Your task to perform on an android device: Open calendar and show me the second week of next month Image 0: 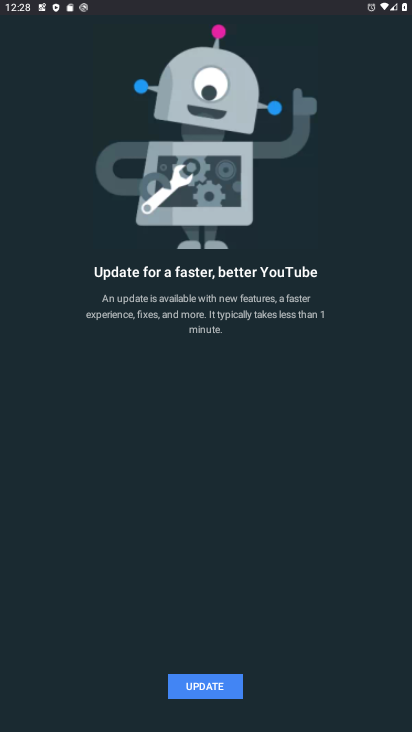
Step 0: press home button
Your task to perform on an android device: Open calendar and show me the second week of next month Image 1: 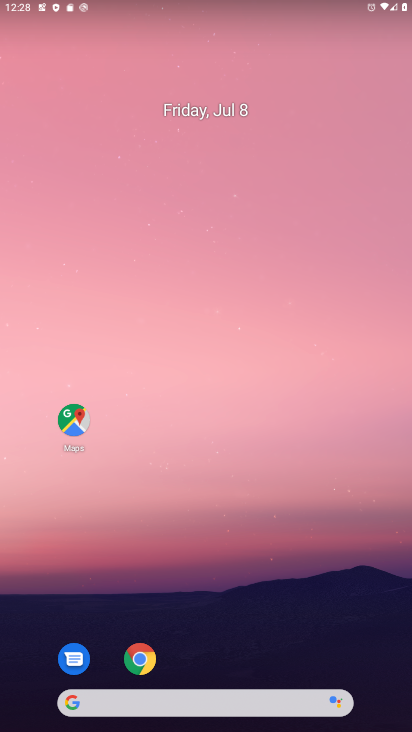
Step 1: drag from (225, 605) to (206, 30)
Your task to perform on an android device: Open calendar and show me the second week of next month Image 2: 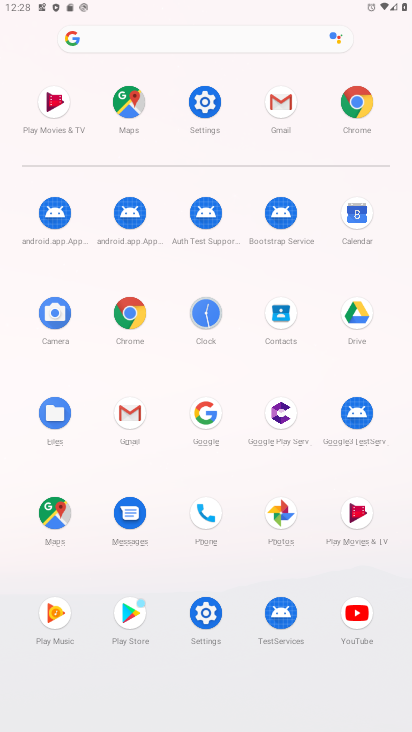
Step 2: click (361, 213)
Your task to perform on an android device: Open calendar and show me the second week of next month Image 3: 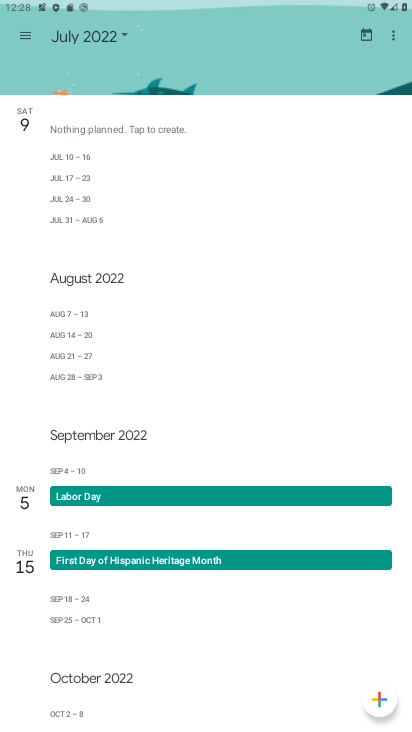
Step 3: click (20, 40)
Your task to perform on an android device: Open calendar and show me the second week of next month Image 4: 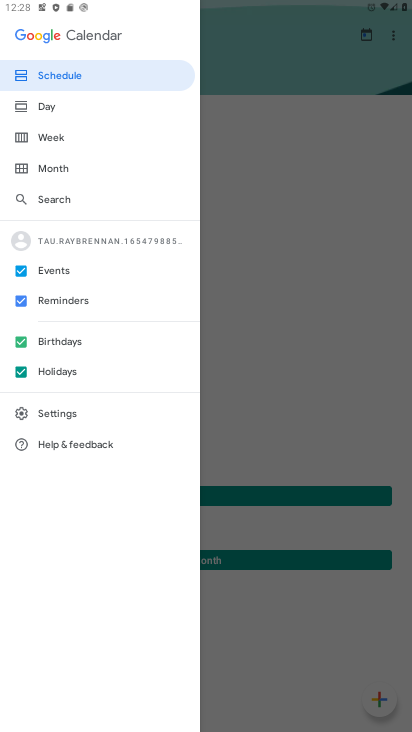
Step 4: click (49, 141)
Your task to perform on an android device: Open calendar and show me the second week of next month Image 5: 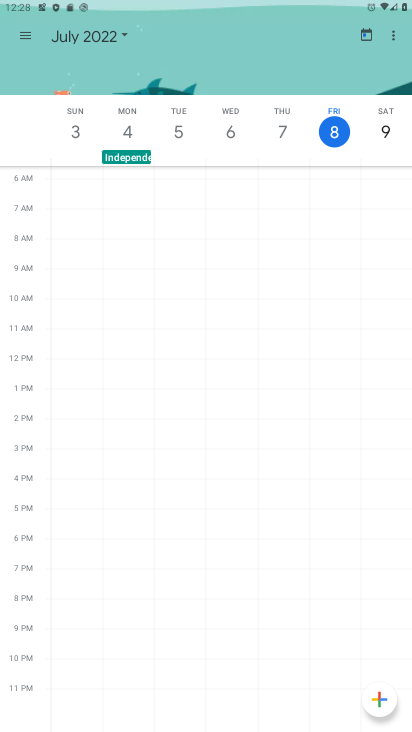
Step 5: click (118, 36)
Your task to perform on an android device: Open calendar and show me the second week of next month Image 6: 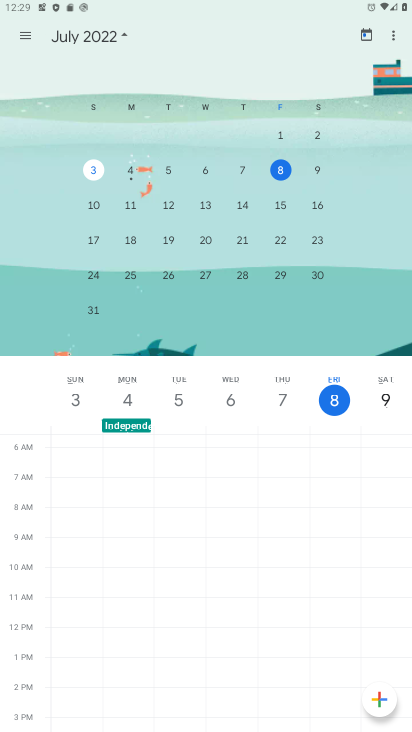
Step 6: drag from (322, 217) to (72, 217)
Your task to perform on an android device: Open calendar and show me the second week of next month Image 7: 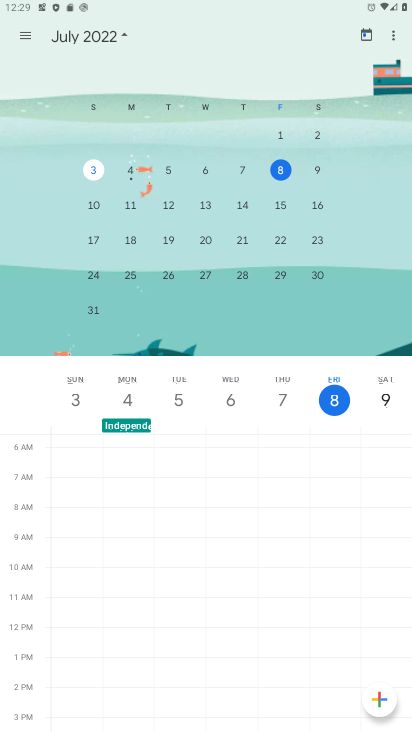
Step 7: drag from (311, 206) to (118, 169)
Your task to perform on an android device: Open calendar and show me the second week of next month Image 8: 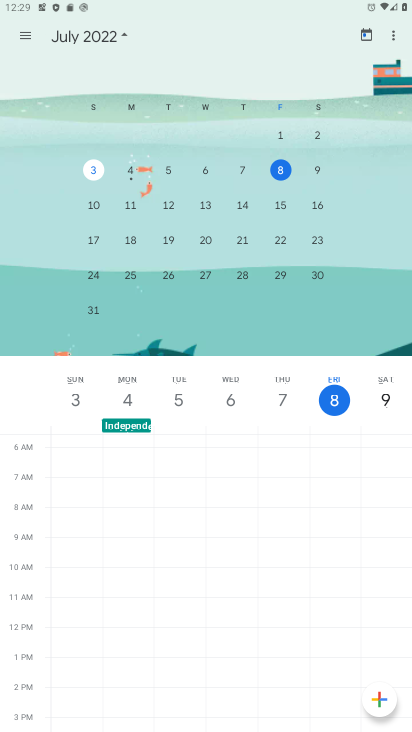
Step 8: drag from (341, 211) to (43, 240)
Your task to perform on an android device: Open calendar and show me the second week of next month Image 9: 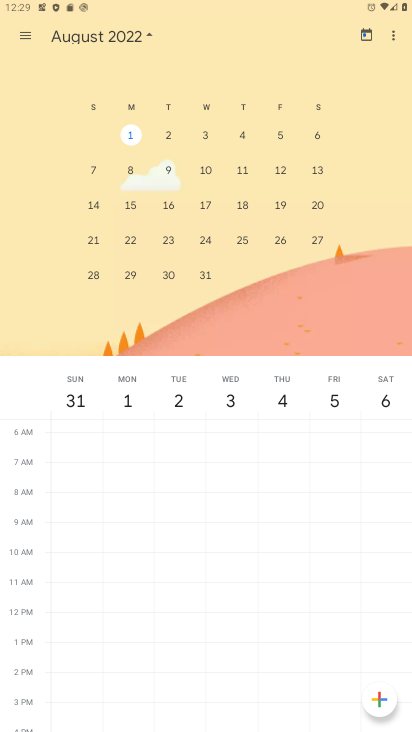
Step 9: click (130, 169)
Your task to perform on an android device: Open calendar and show me the second week of next month Image 10: 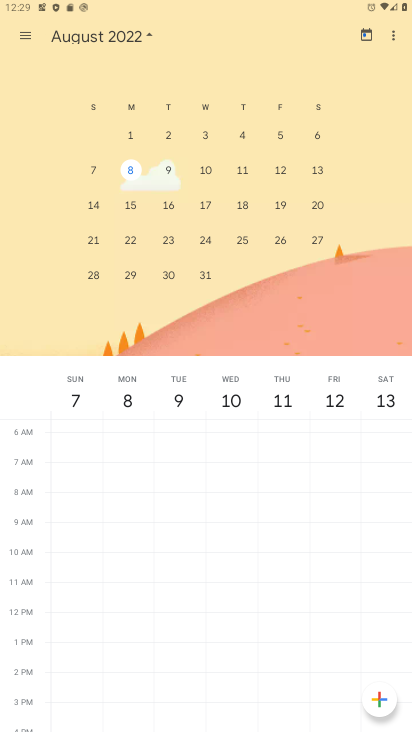
Step 10: task complete